Your task to perform on an android device: Go to Yahoo.com Image 0: 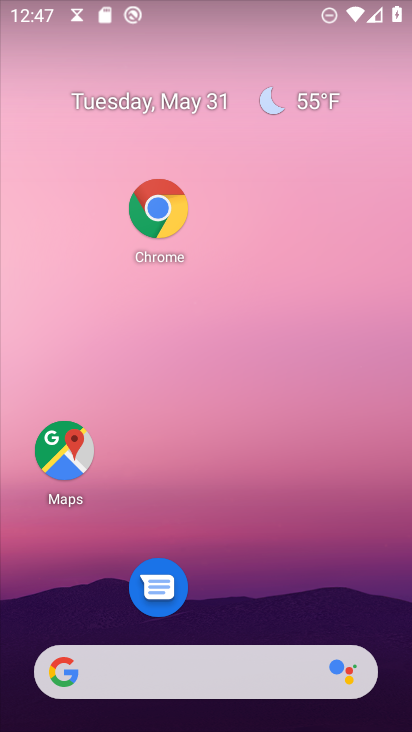
Step 0: click (164, 217)
Your task to perform on an android device: Go to Yahoo.com Image 1: 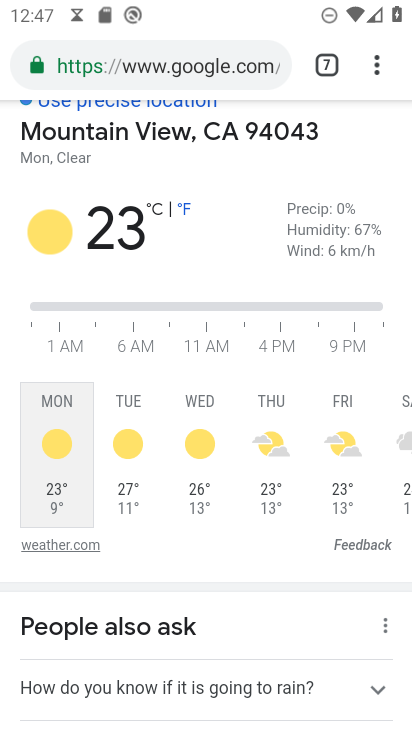
Step 1: click (320, 56)
Your task to perform on an android device: Go to Yahoo.com Image 2: 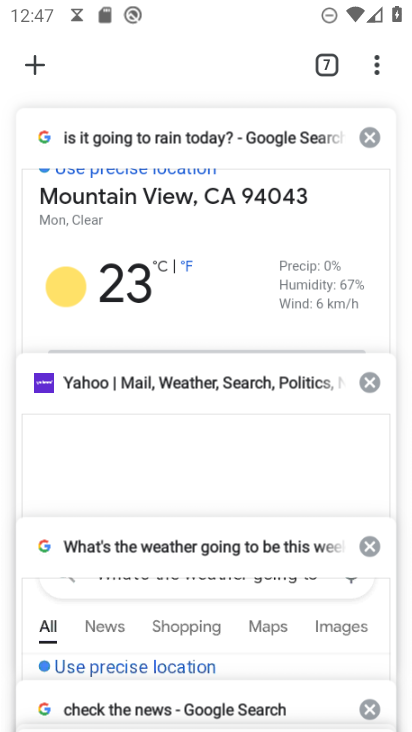
Step 2: click (220, 406)
Your task to perform on an android device: Go to Yahoo.com Image 3: 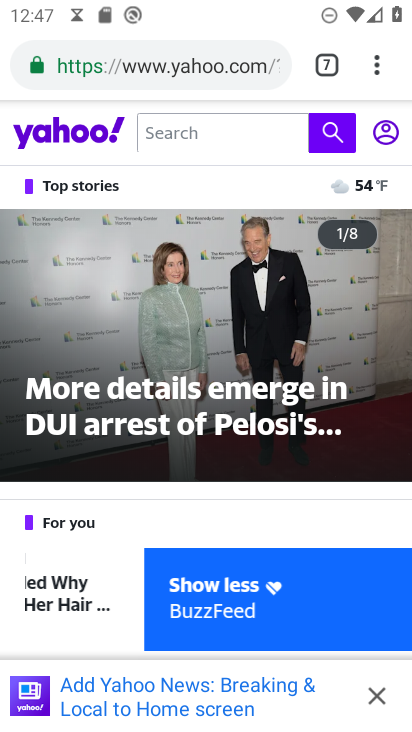
Step 3: task complete